Your task to perform on an android device: check android version Image 0: 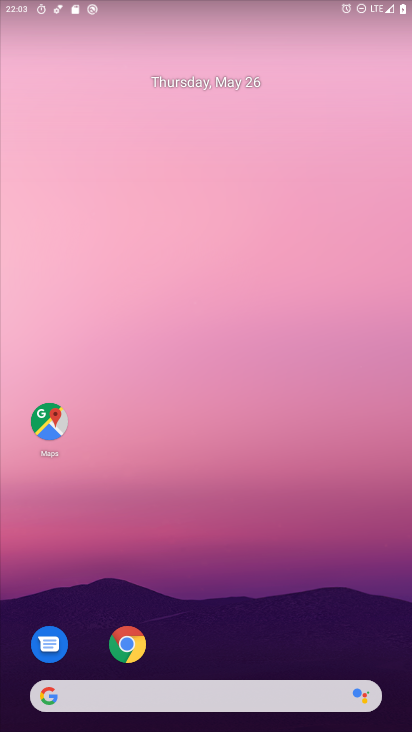
Step 0: drag from (201, 645) to (319, 3)
Your task to perform on an android device: check android version Image 1: 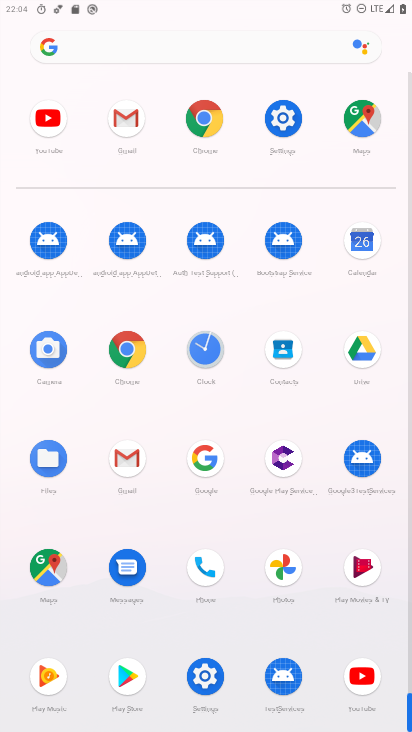
Step 1: click (279, 120)
Your task to perform on an android device: check android version Image 2: 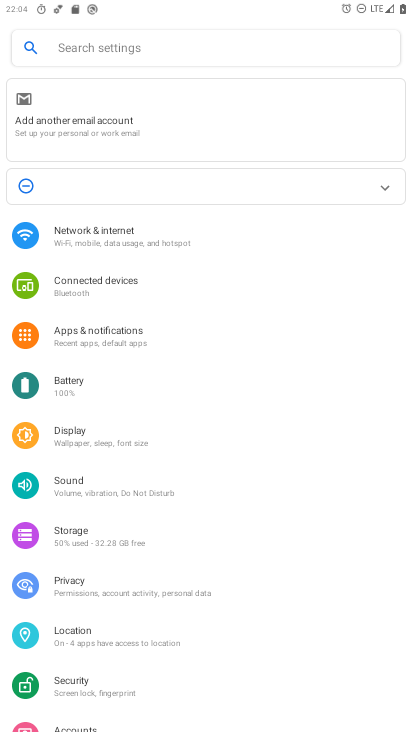
Step 2: drag from (153, 638) to (254, 1)
Your task to perform on an android device: check android version Image 3: 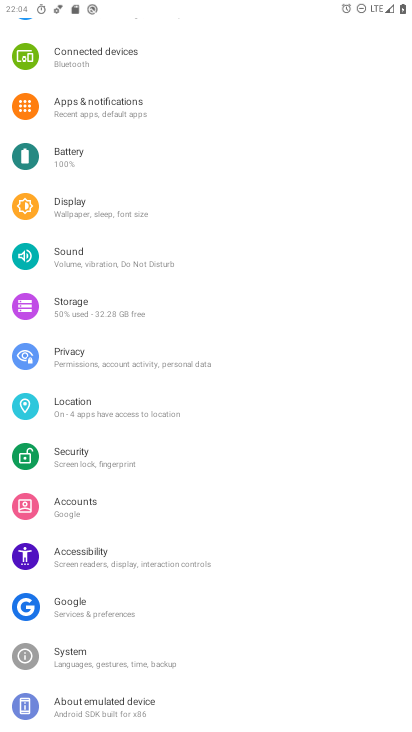
Step 3: click (168, 697)
Your task to perform on an android device: check android version Image 4: 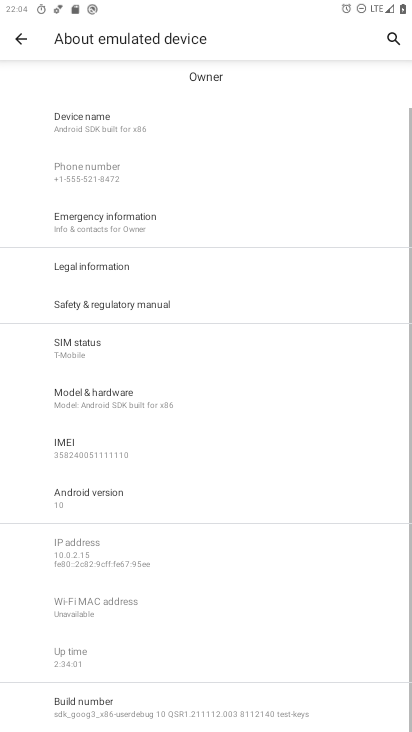
Step 4: click (123, 497)
Your task to perform on an android device: check android version Image 5: 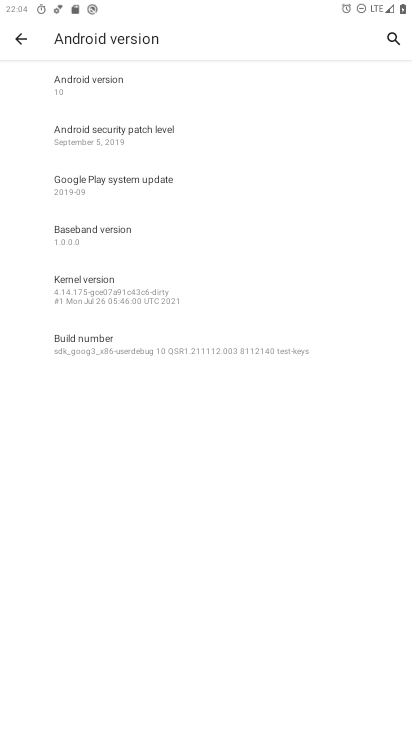
Step 5: task complete